Your task to perform on an android device: See recent photos Image 0: 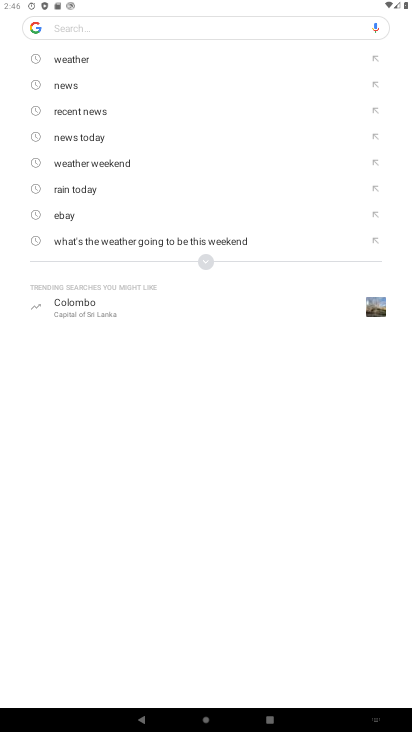
Step 0: press home button
Your task to perform on an android device: See recent photos Image 1: 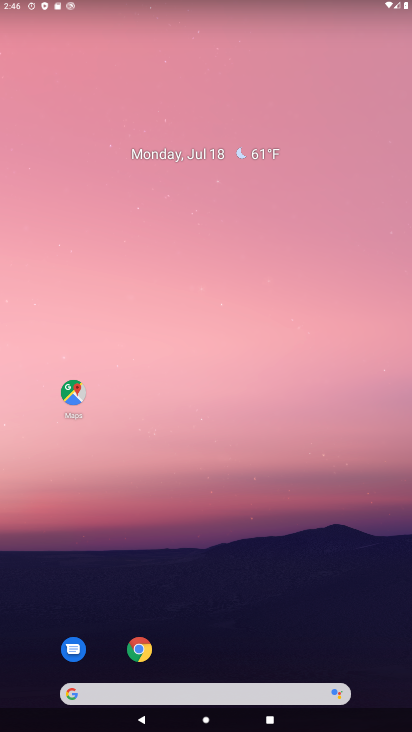
Step 1: drag from (104, 260) to (189, 35)
Your task to perform on an android device: See recent photos Image 2: 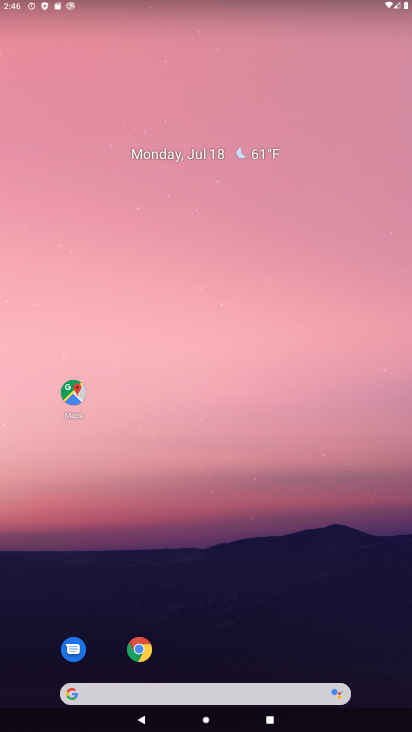
Step 2: drag from (96, 406) to (156, 99)
Your task to perform on an android device: See recent photos Image 3: 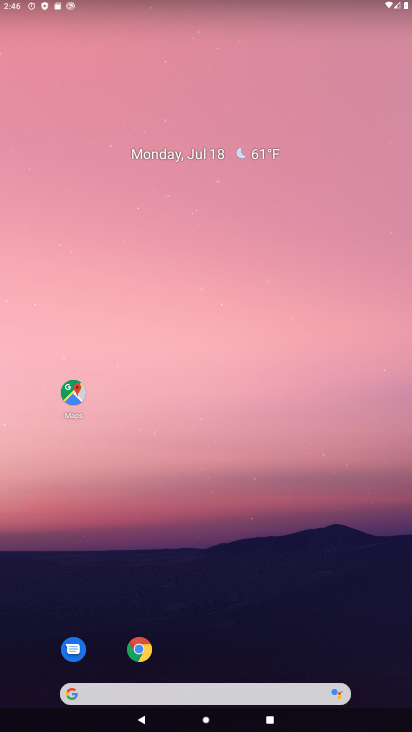
Step 3: drag from (42, 634) to (139, 121)
Your task to perform on an android device: See recent photos Image 4: 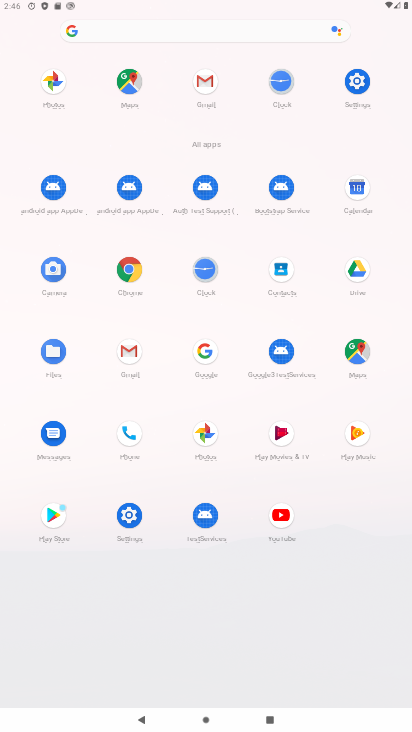
Step 4: click (196, 427)
Your task to perform on an android device: See recent photos Image 5: 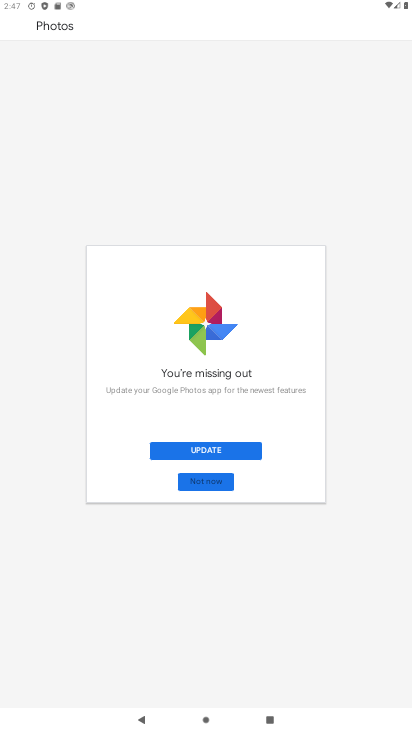
Step 5: click (201, 451)
Your task to perform on an android device: See recent photos Image 6: 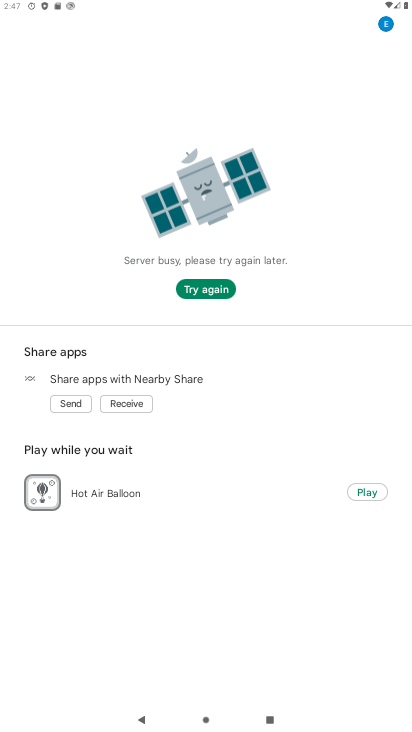
Step 6: task complete